Your task to perform on an android device: Is it going to rain tomorrow? Image 0: 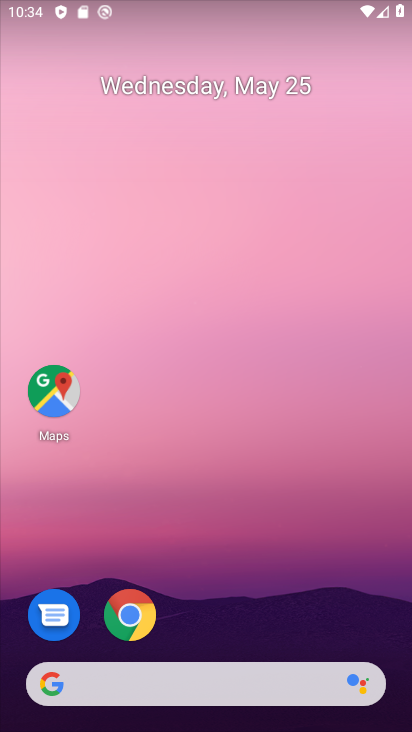
Step 0: click (281, 681)
Your task to perform on an android device: Is it going to rain tomorrow? Image 1: 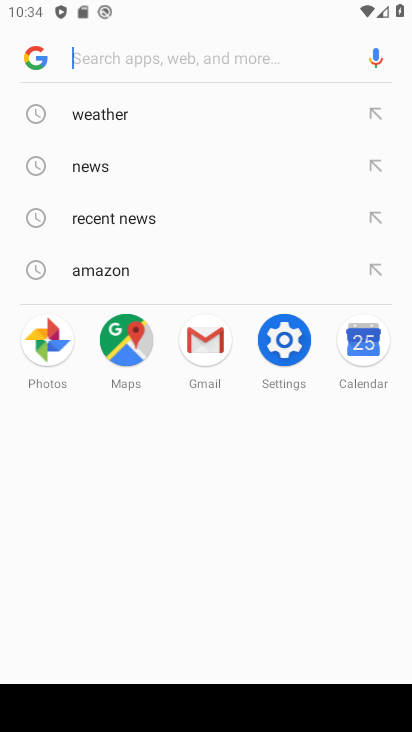
Step 1: type "Is it going to rain tomorrow?"
Your task to perform on an android device: Is it going to rain tomorrow? Image 2: 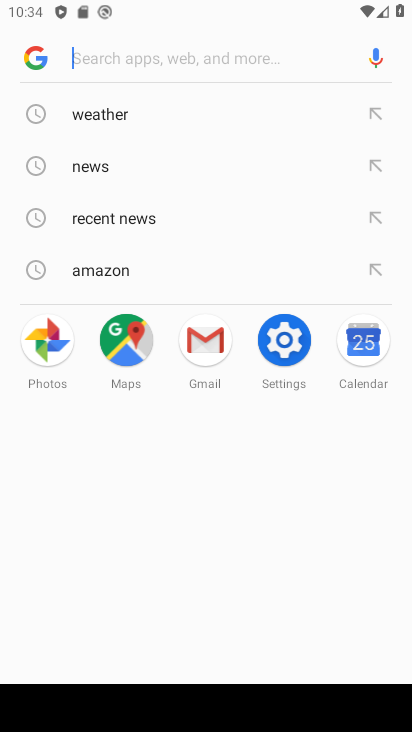
Step 2: click (240, 36)
Your task to perform on an android device: Is it going to rain tomorrow? Image 3: 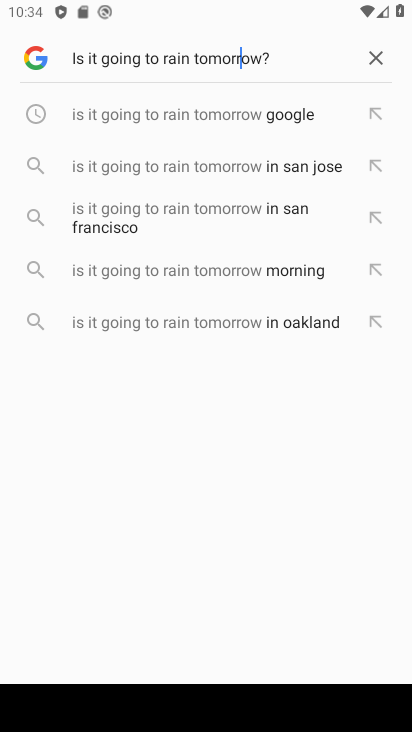
Step 3: click (226, 56)
Your task to perform on an android device: Is it going to rain tomorrow? Image 4: 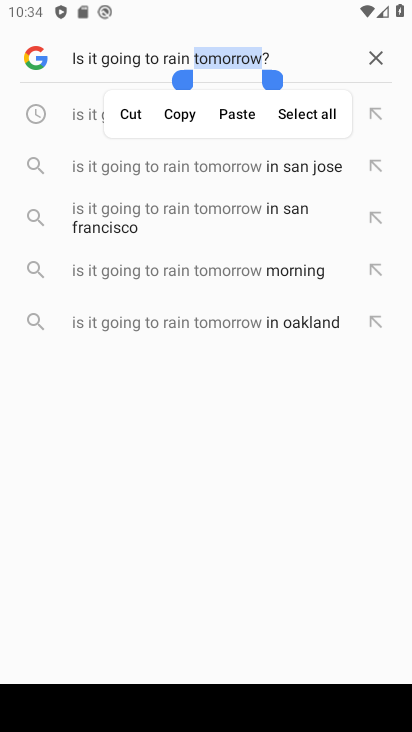
Step 4: click (212, 119)
Your task to perform on an android device: Is it going to rain tomorrow? Image 5: 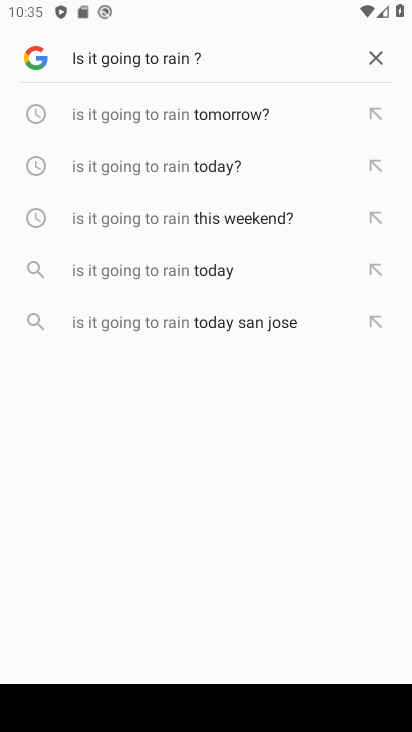
Step 5: click (213, 117)
Your task to perform on an android device: Is it going to rain tomorrow? Image 6: 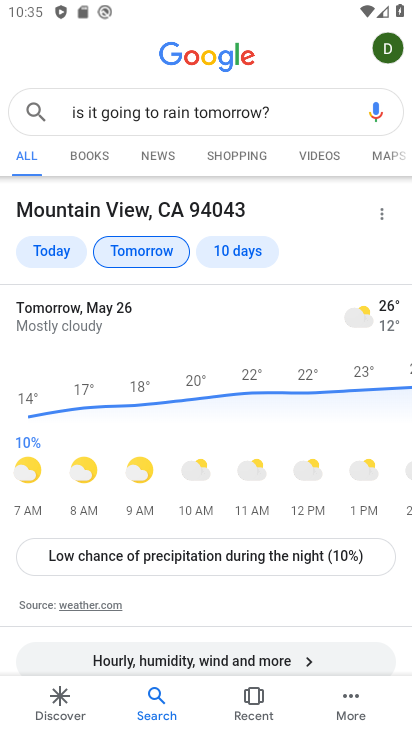
Step 6: task complete